Your task to perform on an android device: Open battery settings Image 0: 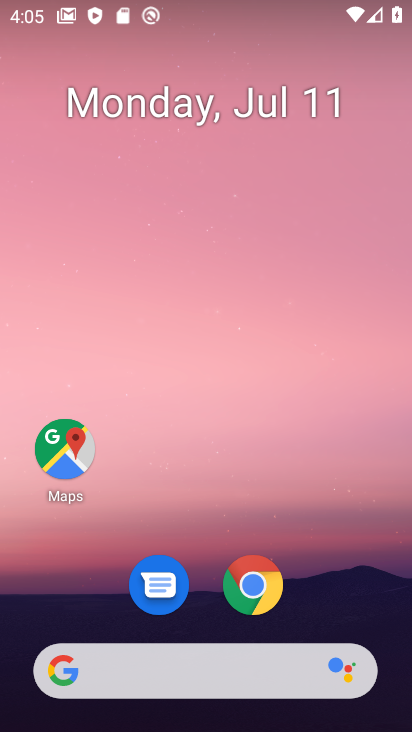
Step 0: drag from (330, 593) to (286, 41)
Your task to perform on an android device: Open battery settings Image 1: 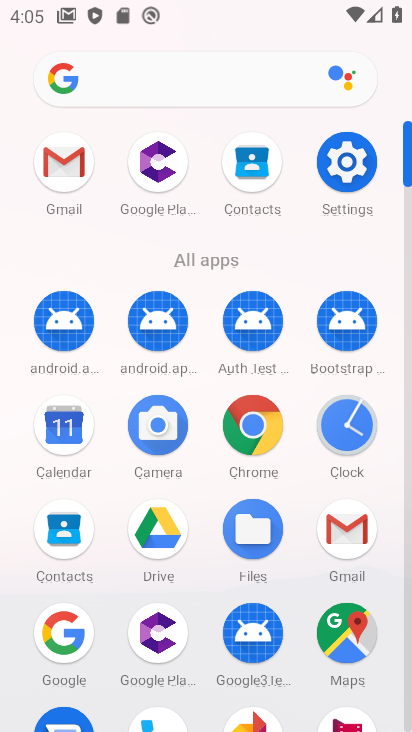
Step 1: click (346, 163)
Your task to perform on an android device: Open battery settings Image 2: 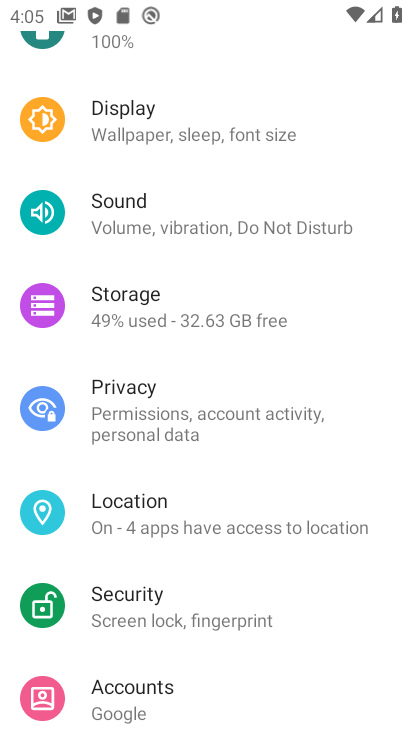
Step 2: drag from (222, 195) to (214, 565)
Your task to perform on an android device: Open battery settings Image 3: 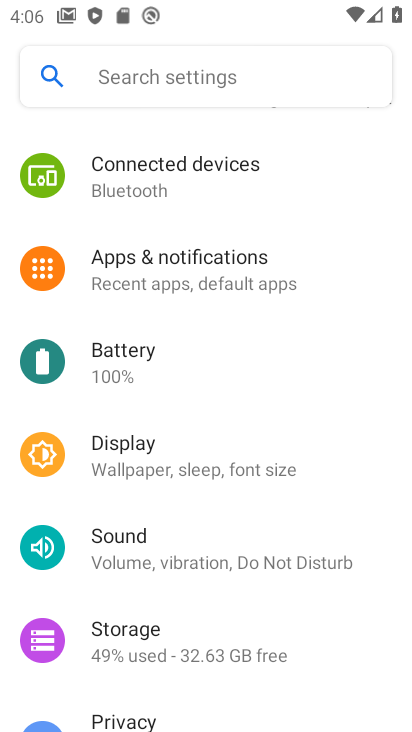
Step 3: click (147, 359)
Your task to perform on an android device: Open battery settings Image 4: 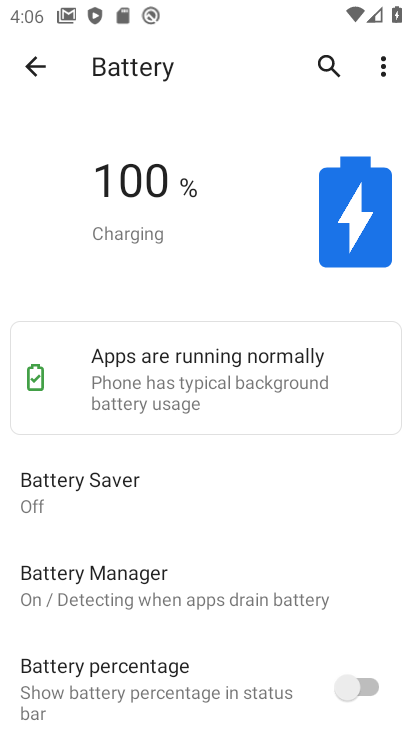
Step 4: task complete